Your task to perform on an android device: uninstall "Flipkart Online Shopping App" Image 0: 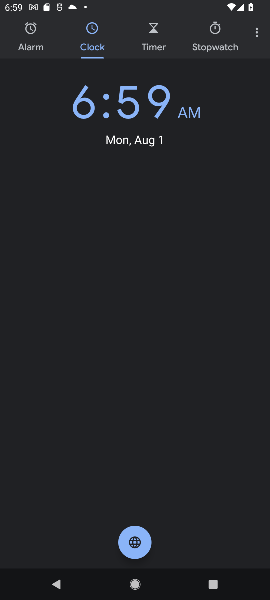
Step 0: press home button
Your task to perform on an android device: uninstall "Flipkart Online Shopping App" Image 1: 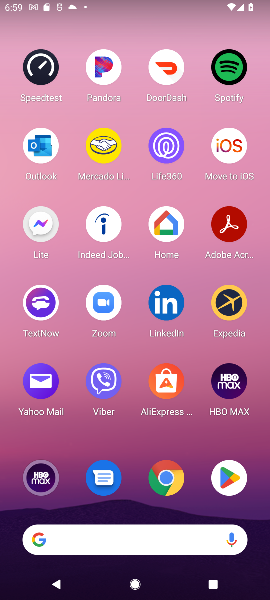
Step 1: click (221, 478)
Your task to perform on an android device: uninstall "Flipkart Online Shopping App" Image 2: 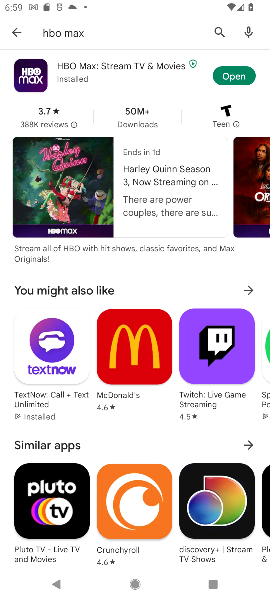
Step 2: click (217, 32)
Your task to perform on an android device: uninstall "Flipkart Online Shopping App" Image 3: 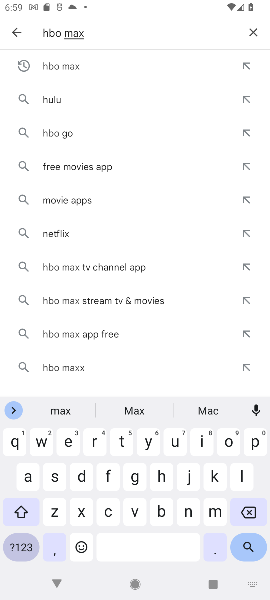
Step 3: click (253, 33)
Your task to perform on an android device: uninstall "Flipkart Online Shopping App" Image 4: 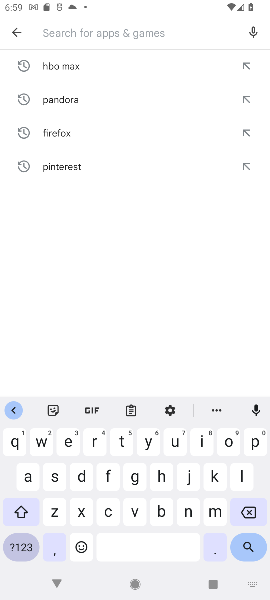
Step 4: click (103, 481)
Your task to perform on an android device: uninstall "Flipkart Online Shopping App" Image 5: 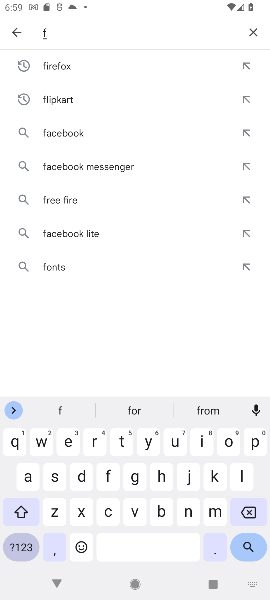
Step 5: click (246, 485)
Your task to perform on an android device: uninstall "Flipkart Online Shopping App" Image 6: 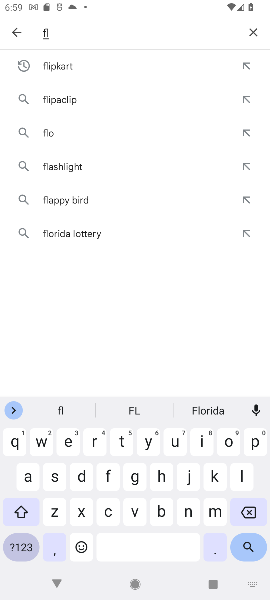
Step 6: click (199, 448)
Your task to perform on an android device: uninstall "Flipkart Online Shopping App" Image 7: 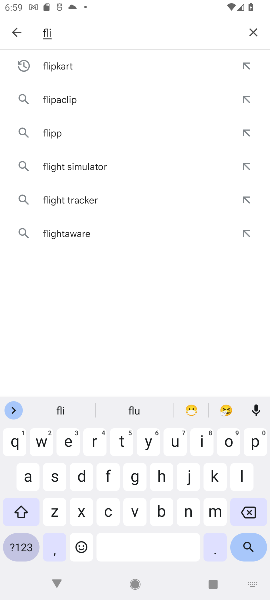
Step 7: click (61, 72)
Your task to perform on an android device: uninstall "Flipkart Online Shopping App" Image 8: 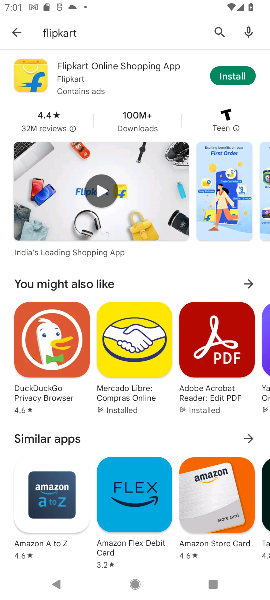
Step 8: task complete